Your task to perform on an android device: check out phone information Image 0: 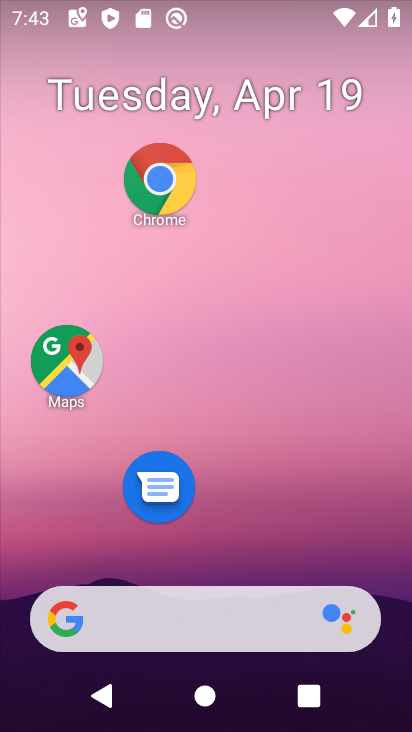
Step 0: drag from (293, 598) to (165, 191)
Your task to perform on an android device: check out phone information Image 1: 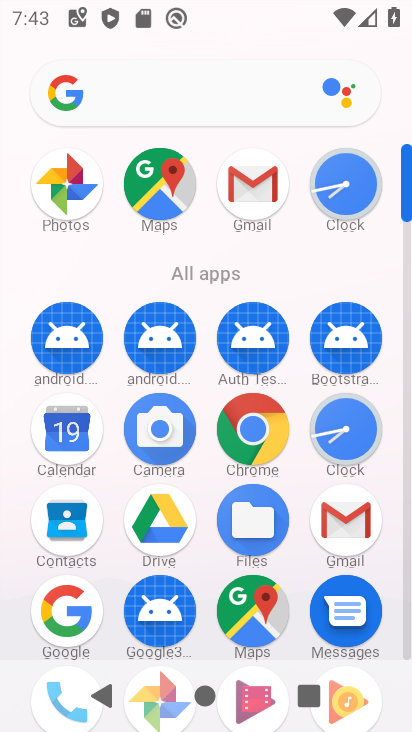
Step 1: drag from (330, 491) to (262, 102)
Your task to perform on an android device: check out phone information Image 2: 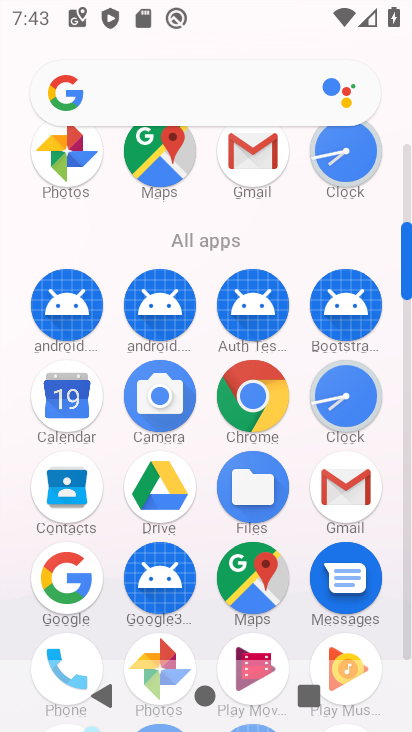
Step 2: click (173, 201)
Your task to perform on an android device: check out phone information Image 3: 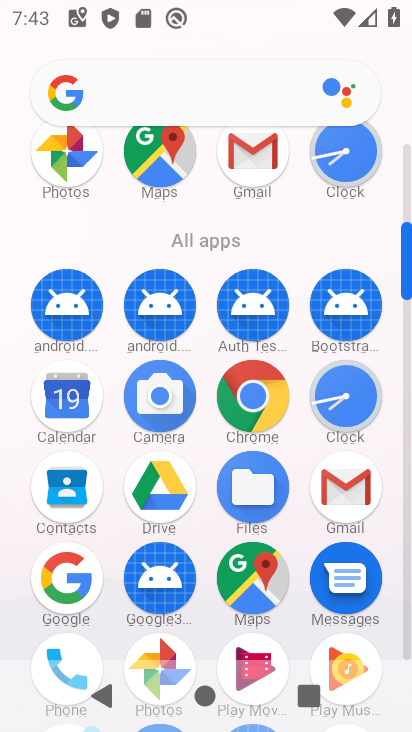
Step 3: drag from (299, 556) to (212, 103)
Your task to perform on an android device: check out phone information Image 4: 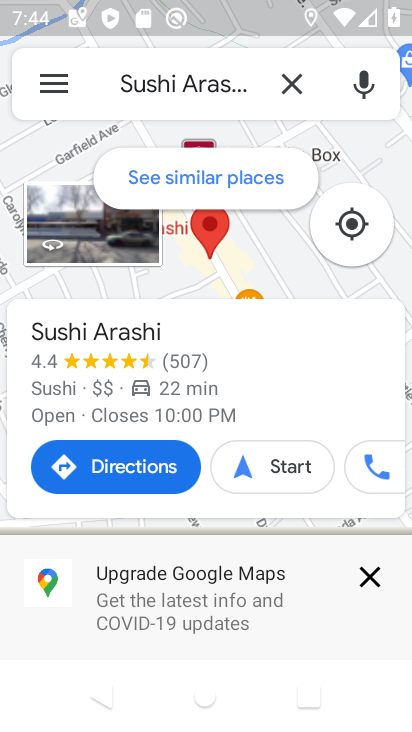
Step 4: press back button
Your task to perform on an android device: check out phone information Image 5: 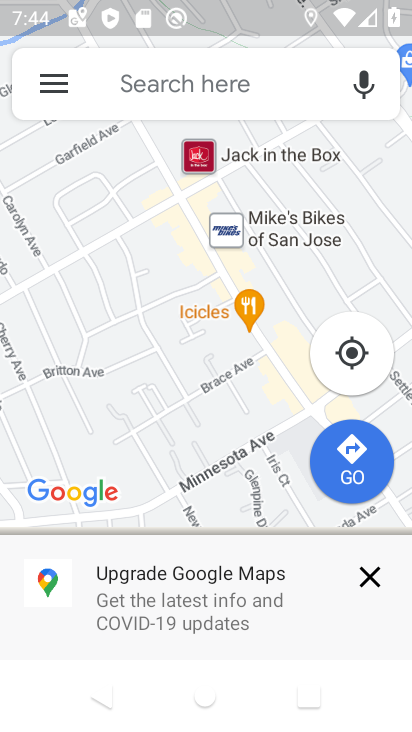
Step 5: press home button
Your task to perform on an android device: check out phone information Image 6: 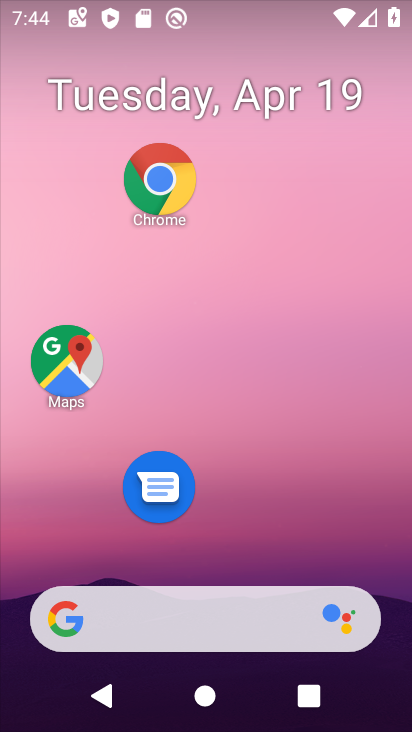
Step 6: drag from (252, 654) to (194, 0)
Your task to perform on an android device: check out phone information Image 7: 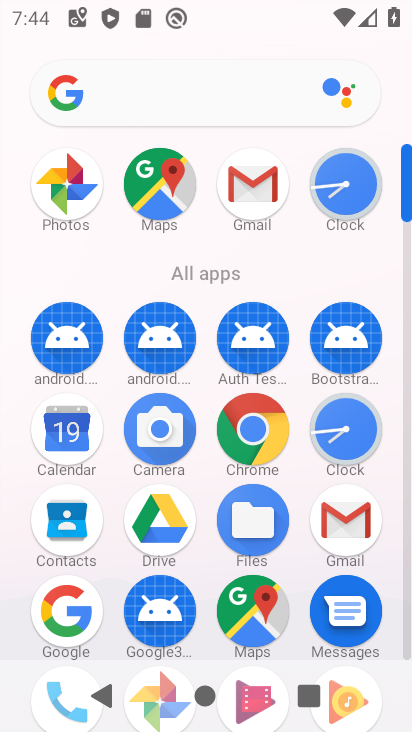
Step 7: drag from (352, 558) to (352, 96)
Your task to perform on an android device: check out phone information Image 8: 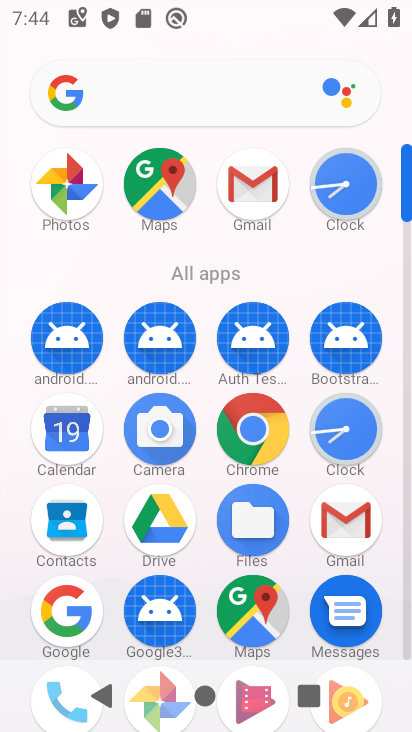
Step 8: drag from (274, 324) to (231, 197)
Your task to perform on an android device: check out phone information Image 9: 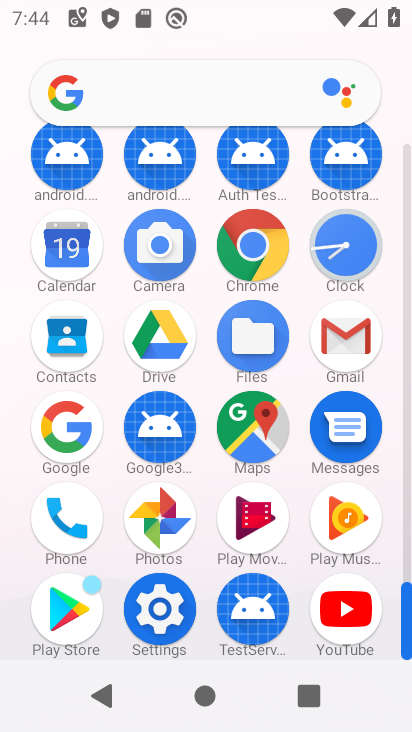
Step 9: click (157, 601)
Your task to perform on an android device: check out phone information Image 10: 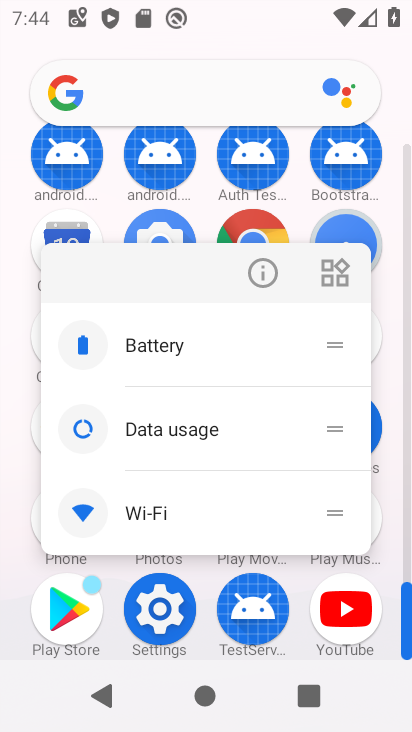
Step 10: click (168, 621)
Your task to perform on an android device: check out phone information Image 11: 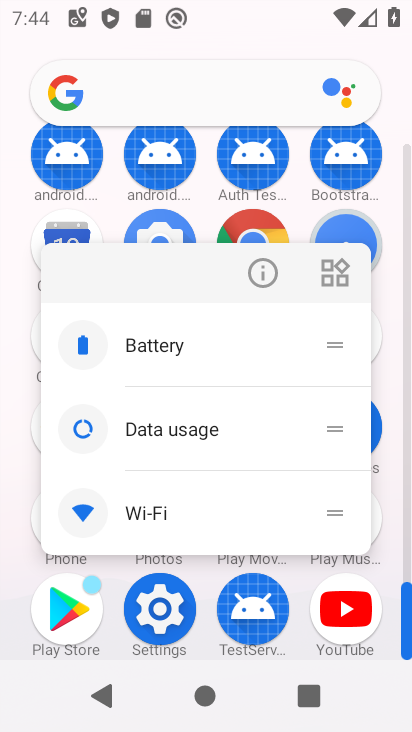
Step 11: click (161, 616)
Your task to perform on an android device: check out phone information Image 12: 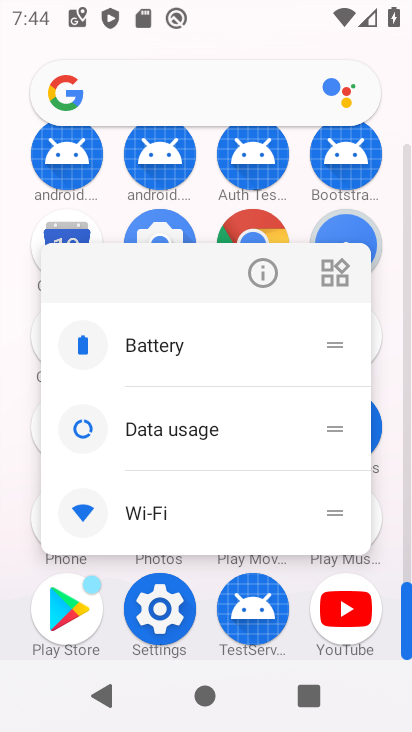
Step 12: click (160, 616)
Your task to perform on an android device: check out phone information Image 13: 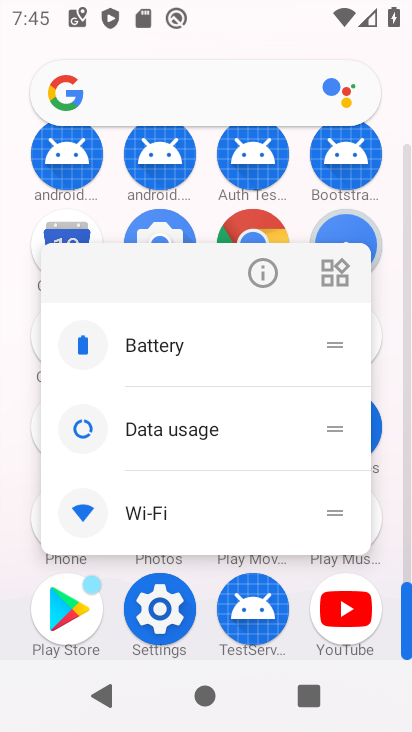
Step 13: click (159, 617)
Your task to perform on an android device: check out phone information Image 14: 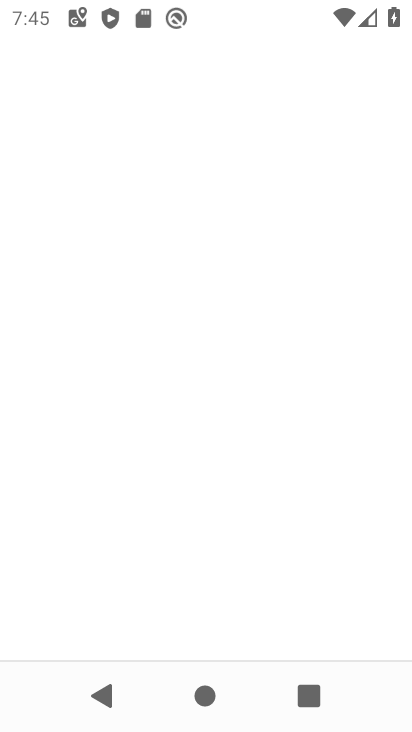
Step 14: click (154, 615)
Your task to perform on an android device: check out phone information Image 15: 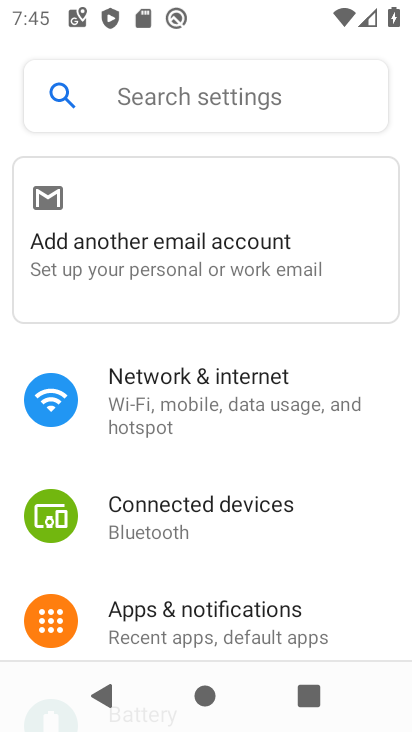
Step 15: drag from (198, 572) to (190, 334)
Your task to perform on an android device: check out phone information Image 16: 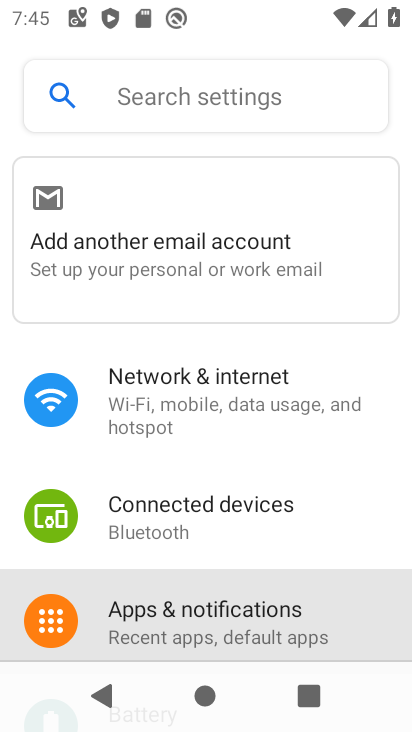
Step 16: drag from (212, 576) to (197, 308)
Your task to perform on an android device: check out phone information Image 17: 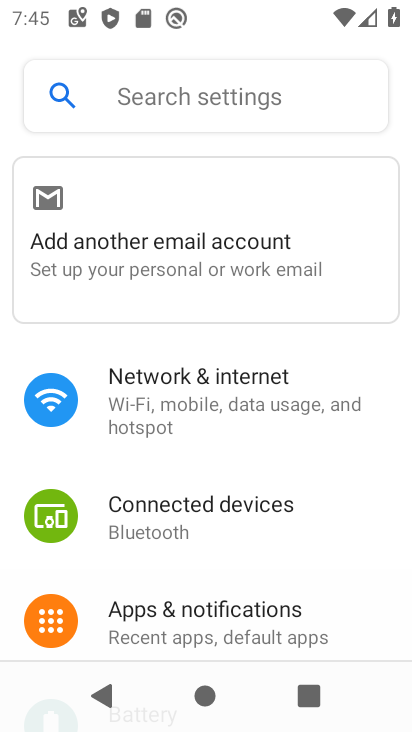
Step 17: drag from (261, 580) to (233, 305)
Your task to perform on an android device: check out phone information Image 18: 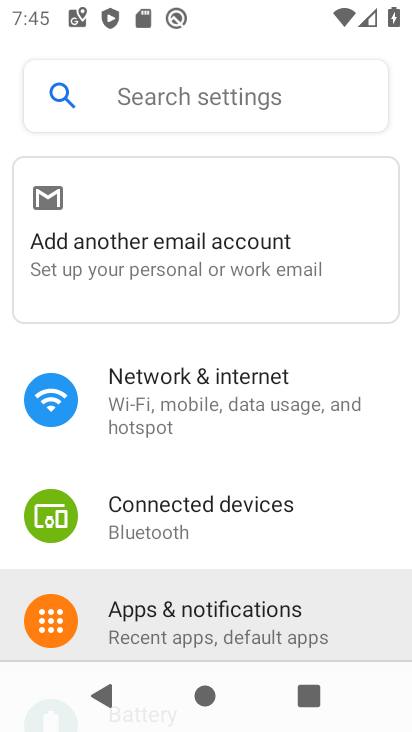
Step 18: drag from (253, 570) to (164, 166)
Your task to perform on an android device: check out phone information Image 19: 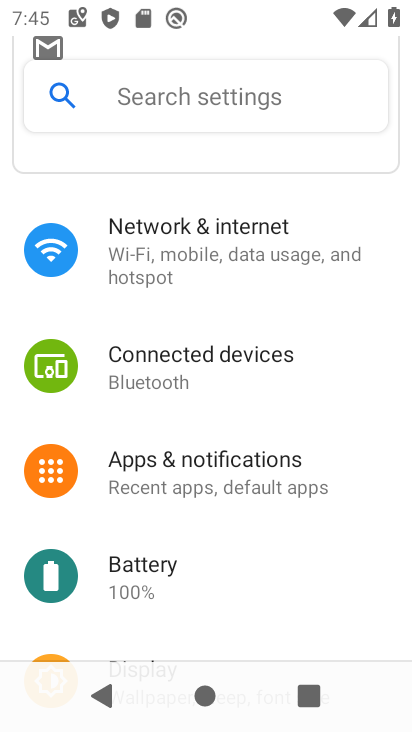
Step 19: drag from (110, 493) to (108, 211)
Your task to perform on an android device: check out phone information Image 20: 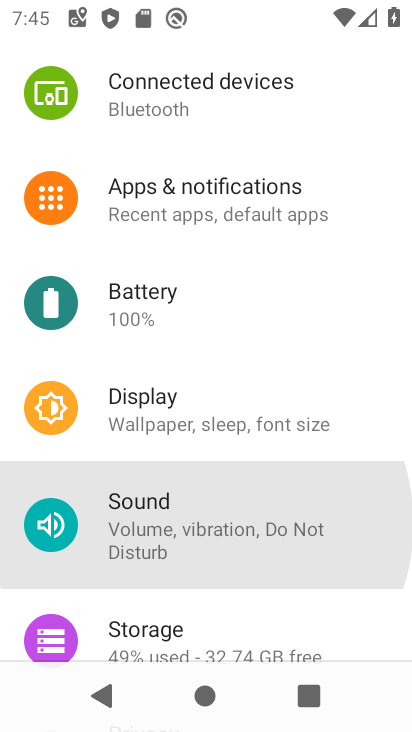
Step 20: drag from (198, 360) to (282, 310)
Your task to perform on an android device: check out phone information Image 21: 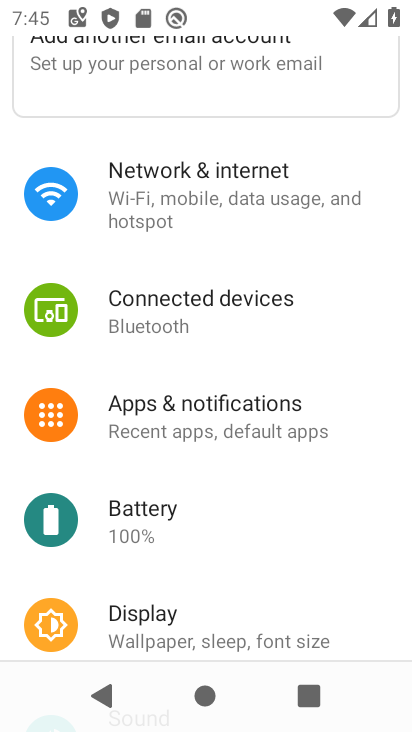
Step 21: drag from (288, 687) to (150, 221)
Your task to perform on an android device: check out phone information Image 22: 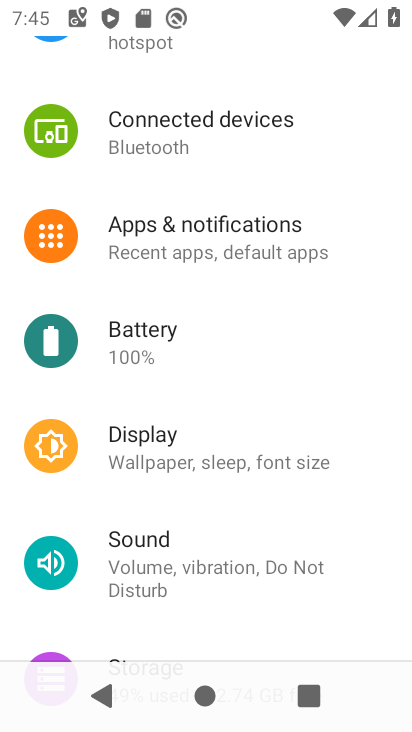
Step 22: drag from (230, 585) to (256, 247)
Your task to perform on an android device: check out phone information Image 23: 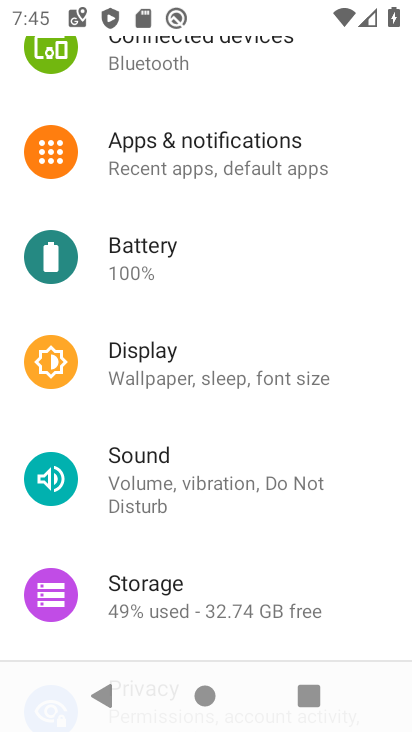
Step 23: drag from (213, 576) to (139, 212)
Your task to perform on an android device: check out phone information Image 24: 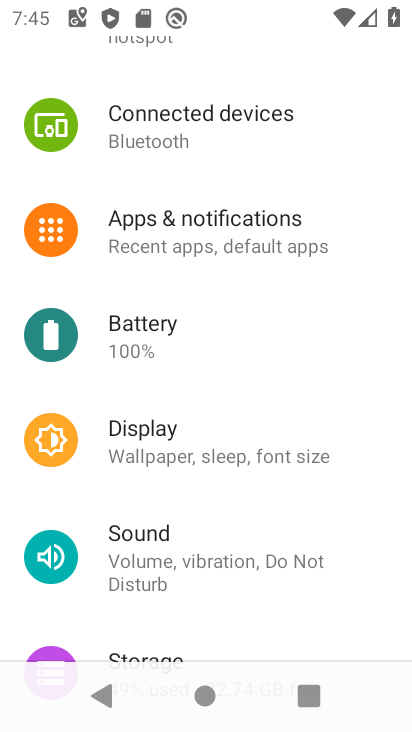
Step 24: drag from (232, 358) to (217, 107)
Your task to perform on an android device: check out phone information Image 25: 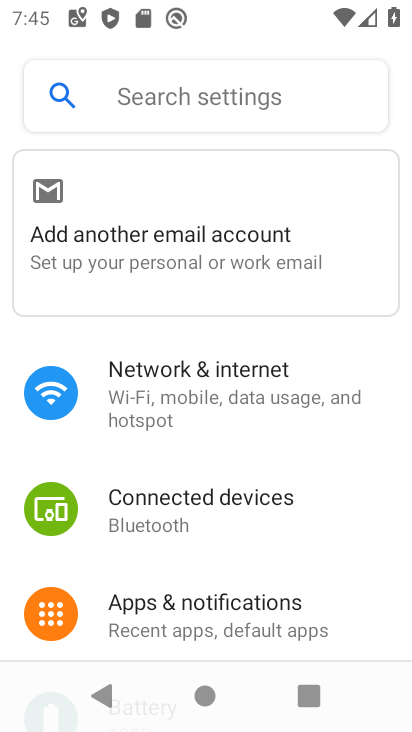
Step 25: drag from (277, 465) to (114, 176)
Your task to perform on an android device: check out phone information Image 26: 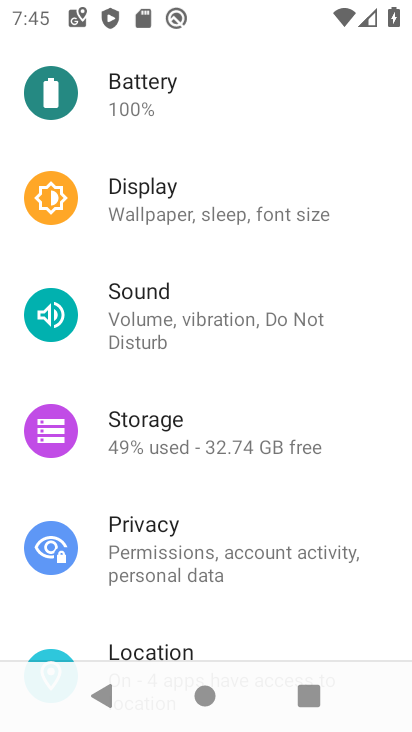
Step 26: click (117, 185)
Your task to perform on an android device: check out phone information Image 27: 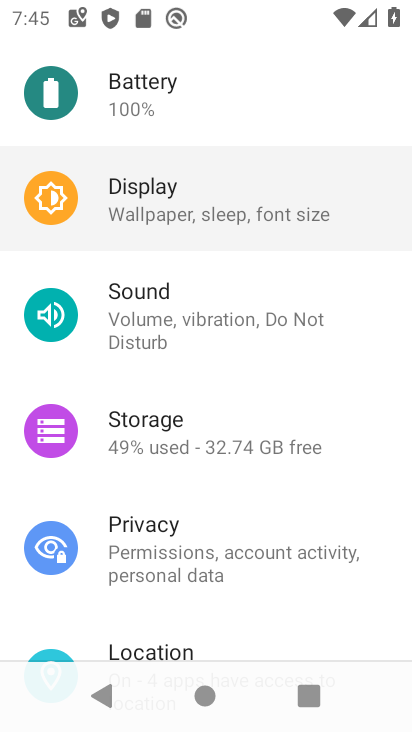
Step 27: drag from (218, 212) to (181, 205)
Your task to perform on an android device: check out phone information Image 28: 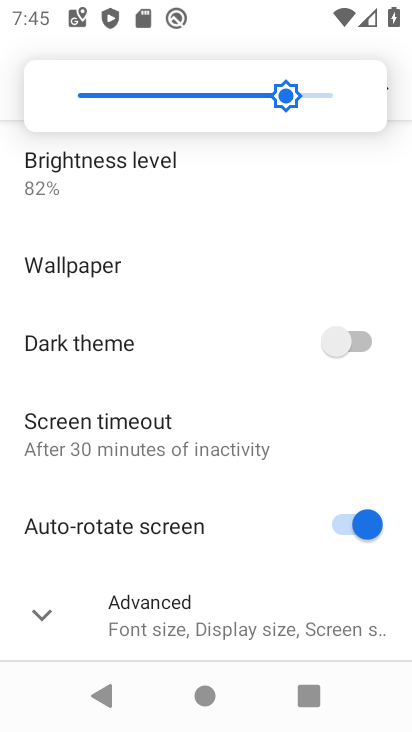
Step 28: drag from (221, 606) to (197, 299)
Your task to perform on an android device: check out phone information Image 29: 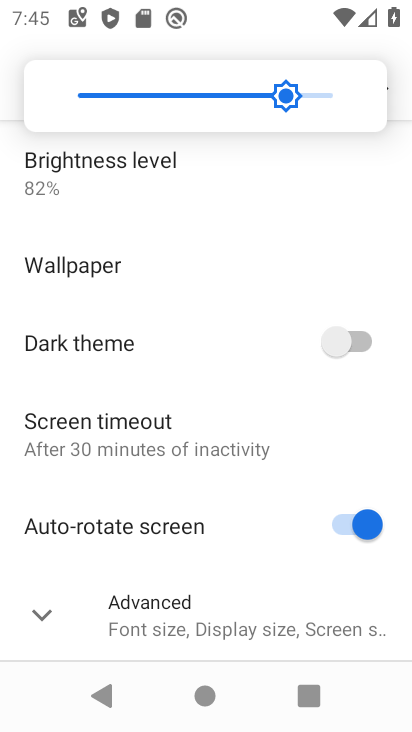
Step 29: drag from (255, 471) to (199, 238)
Your task to perform on an android device: check out phone information Image 30: 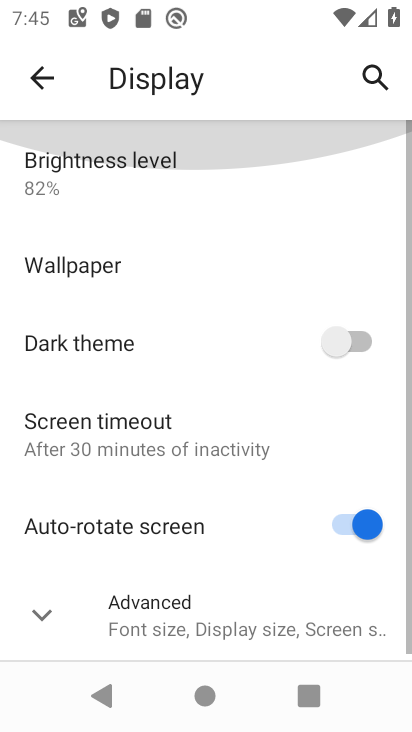
Step 30: drag from (230, 470) to (196, 190)
Your task to perform on an android device: check out phone information Image 31: 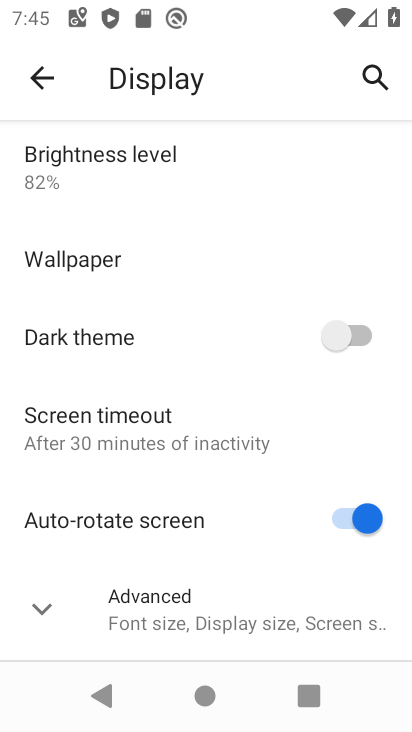
Step 31: click (41, 78)
Your task to perform on an android device: check out phone information Image 32: 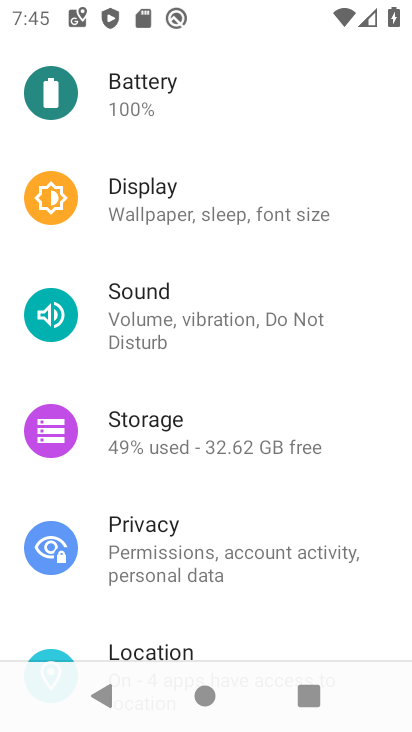
Step 32: drag from (187, 487) to (138, 203)
Your task to perform on an android device: check out phone information Image 33: 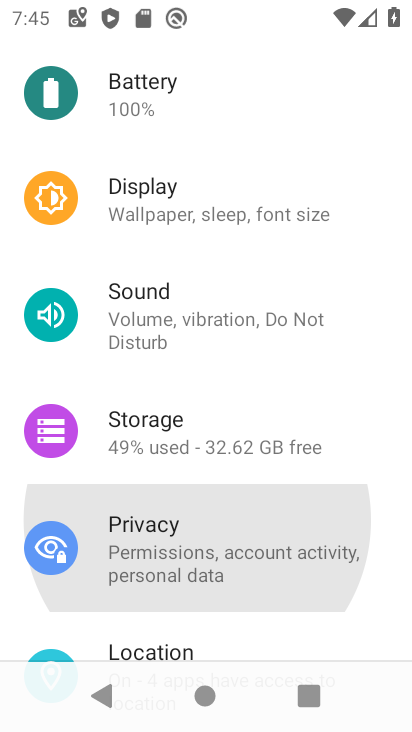
Step 33: drag from (190, 259) to (195, 225)
Your task to perform on an android device: check out phone information Image 34: 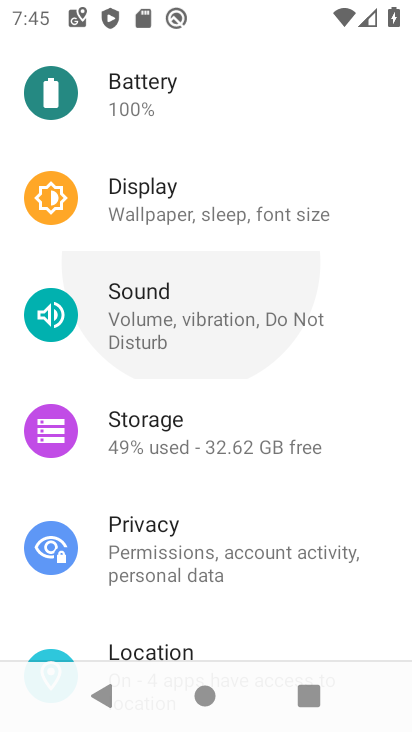
Step 34: click (261, 259)
Your task to perform on an android device: check out phone information Image 35: 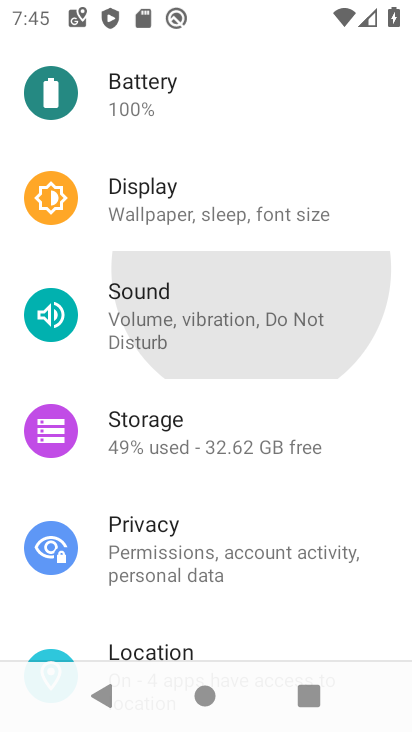
Step 35: click (197, 209)
Your task to perform on an android device: check out phone information Image 36: 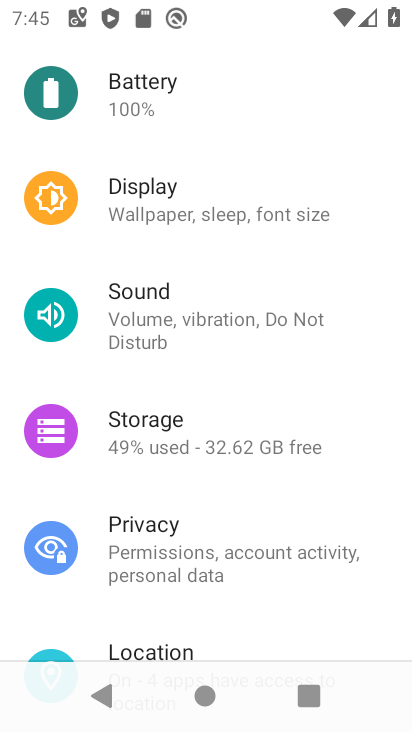
Step 36: drag from (208, 446) to (133, 245)
Your task to perform on an android device: check out phone information Image 37: 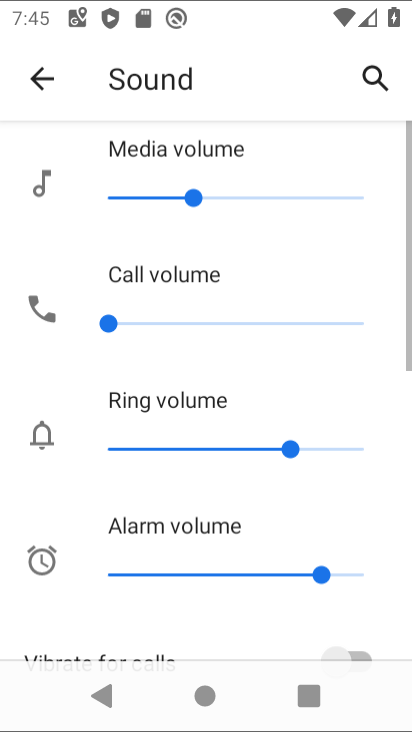
Step 37: drag from (127, 385) to (160, 221)
Your task to perform on an android device: check out phone information Image 38: 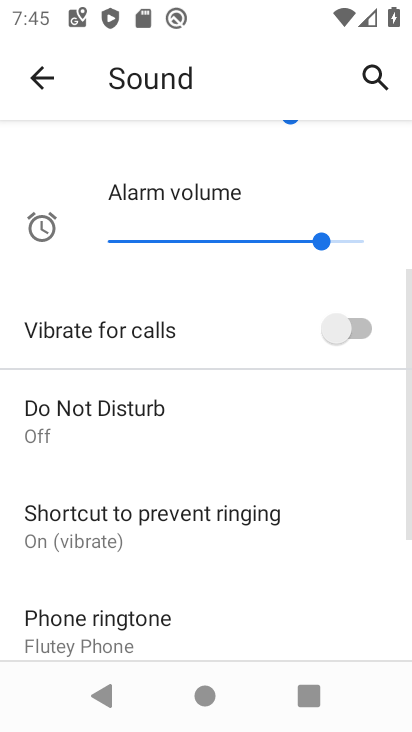
Step 38: click (30, 81)
Your task to perform on an android device: check out phone information Image 39: 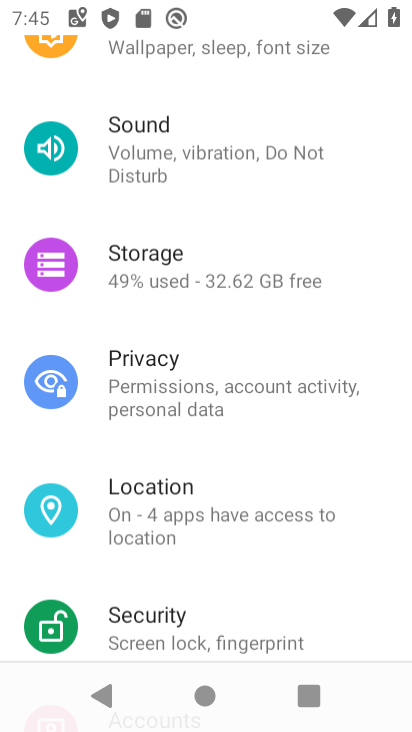
Step 39: click (30, 81)
Your task to perform on an android device: check out phone information Image 40: 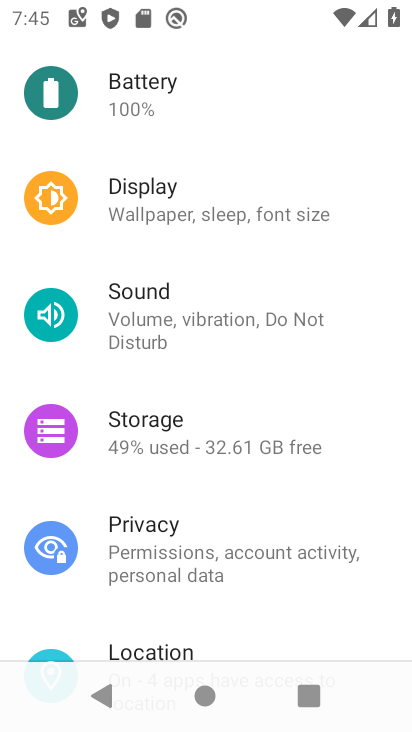
Step 40: drag from (145, 365) to (210, 233)
Your task to perform on an android device: check out phone information Image 41: 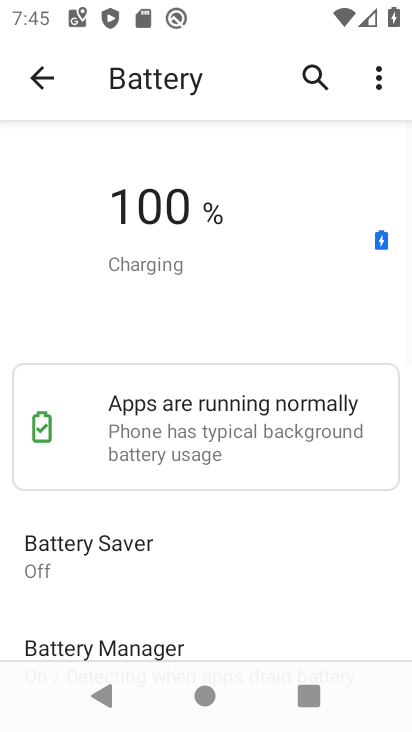
Step 41: click (35, 73)
Your task to perform on an android device: check out phone information Image 42: 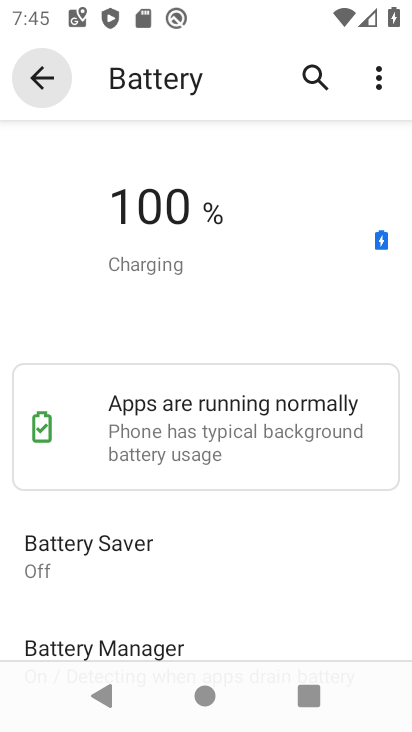
Step 42: click (36, 74)
Your task to perform on an android device: check out phone information Image 43: 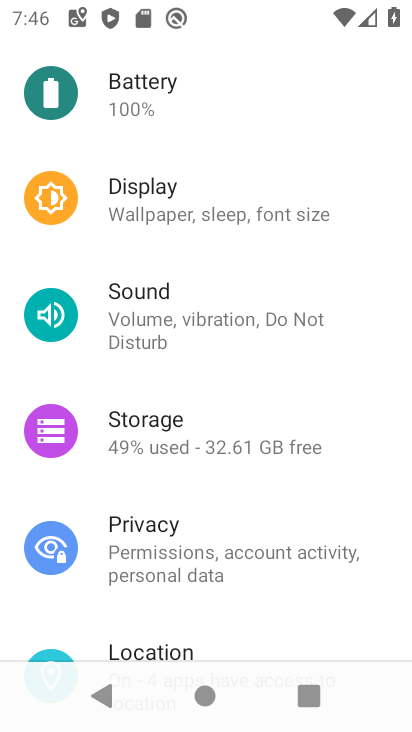
Step 43: drag from (189, 545) to (173, 154)
Your task to perform on an android device: check out phone information Image 44: 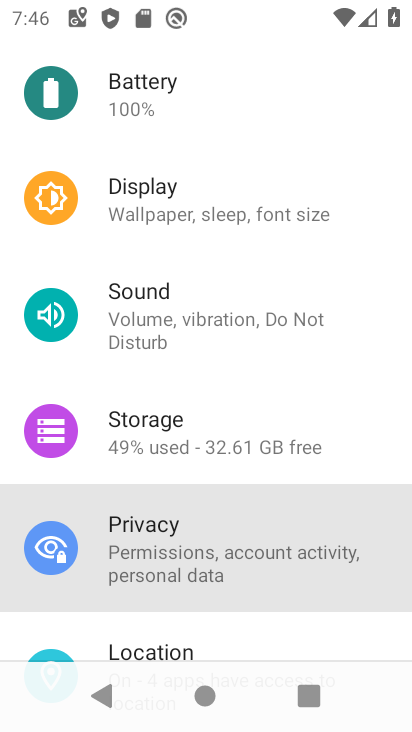
Step 44: drag from (203, 428) to (158, 254)
Your task to perform on an android device: check out phone information Image 45: 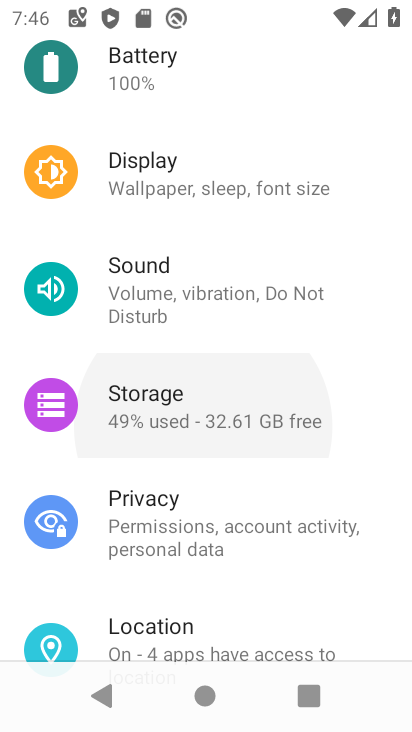
Step 45: drag from (228, 414) to (198, 206)
Your task to perform on an android device: check out phone information Image 46: 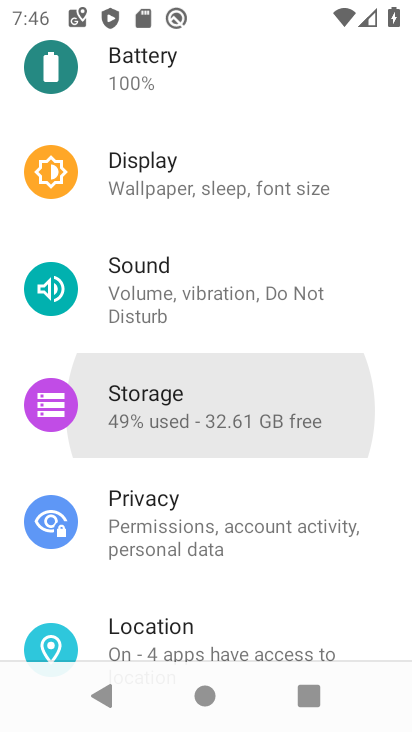
Step 46: drag from (208, 472) to (146, 222)
Your task to perform on an android device: check out phone information Image 47: 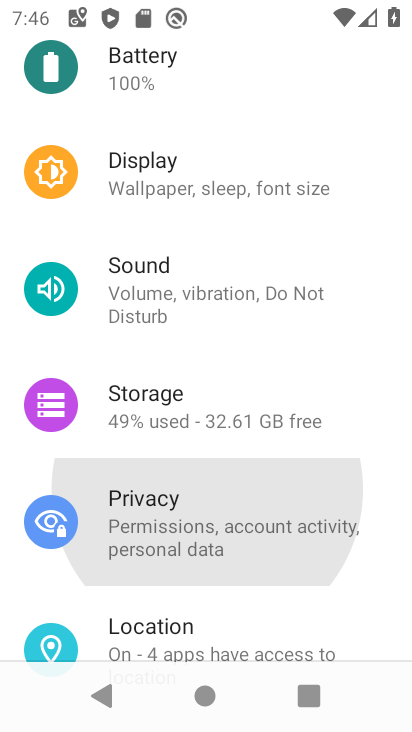
Step 47: drag from (211, 456) to (192, 280)
Your task to perform on an android device: check out phone information Image 48: 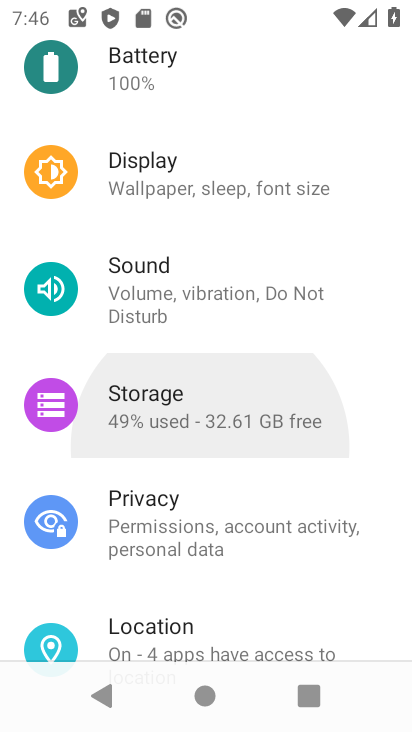
Step 48: drag from (226, 367) to (213, 238)
Your task to perform on an android device: check out phone information Image 49: 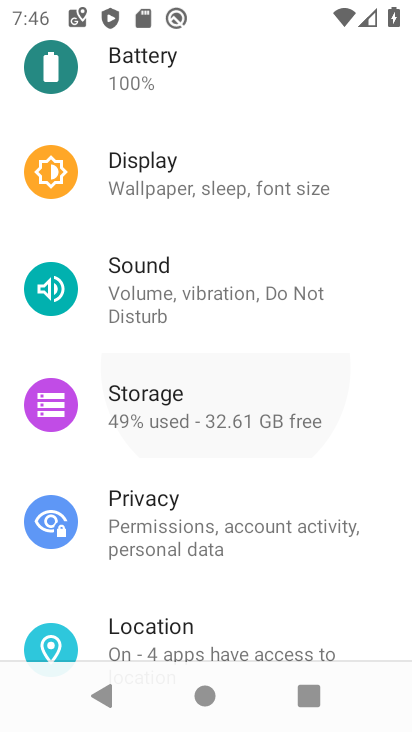
Step 49: click (189, 285)
Your task to perform on an android device: check out phone information Image 50: 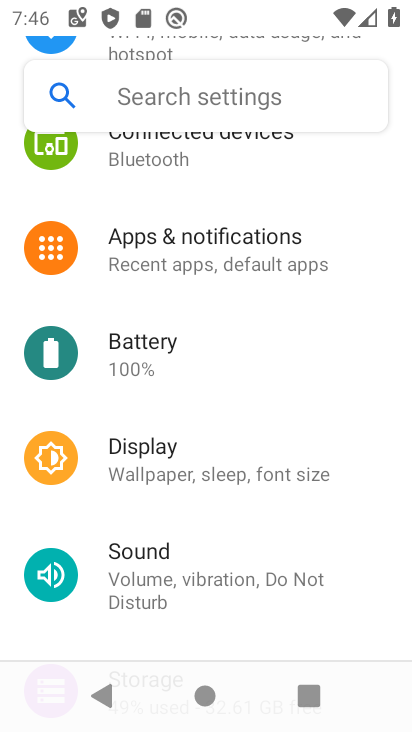
Step 50: drag from (208, 501) to (95, 308)
Your task to perform on an android device: check out phone information Image 51: 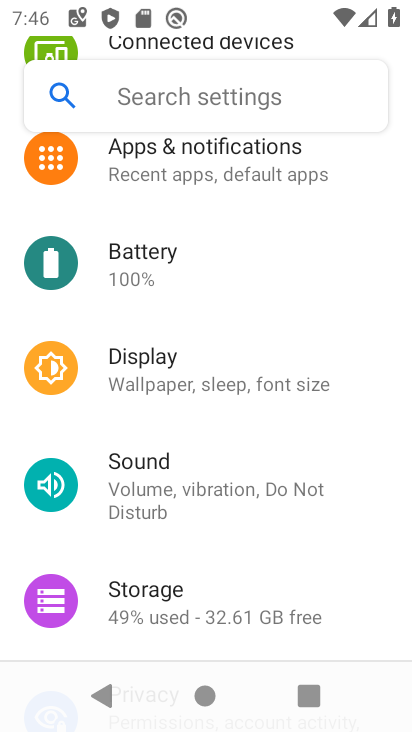
Step 51: drag from (182, 484) to (162, 274)
Your task to perform on an android device: check out phone information Image 52: 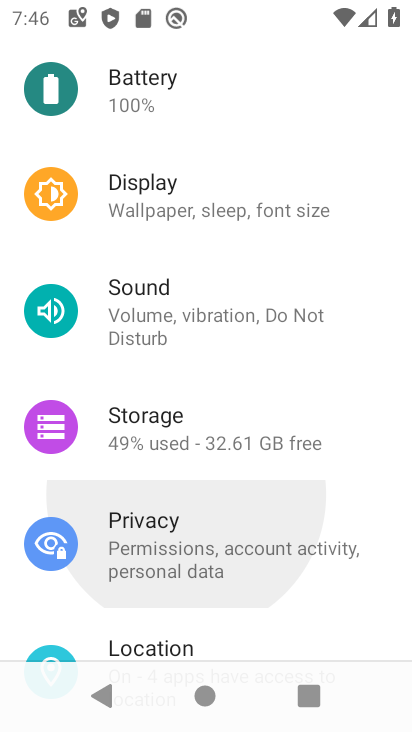
Step 52: drag from (182, 298) to (182, 243)
Your task to perform on an android device: check out phone information Image 53: 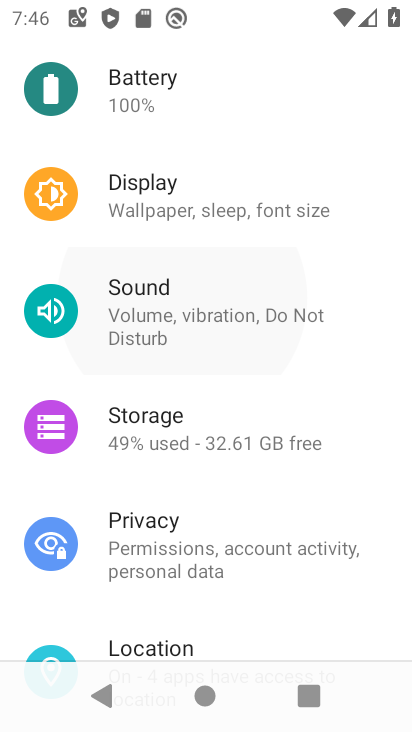
Step 53: drag from (261, 262) to (206, 312)
Your task to perform on an android device: check out phone information Image 54: 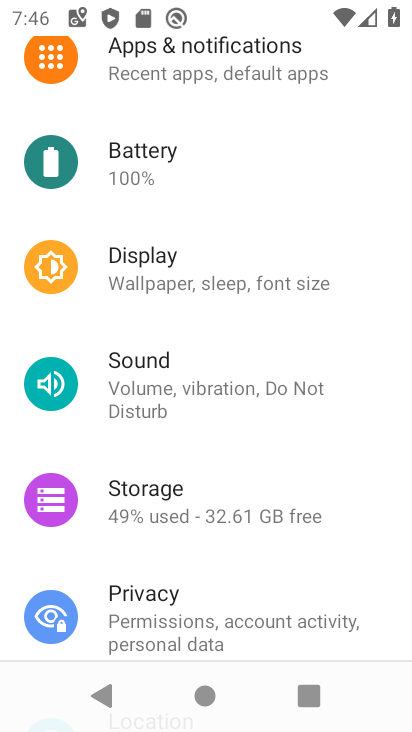
Step 54: drag from (166, 462) to (137, 252)
Your task to perform on an android device: check out phone information Image 55: 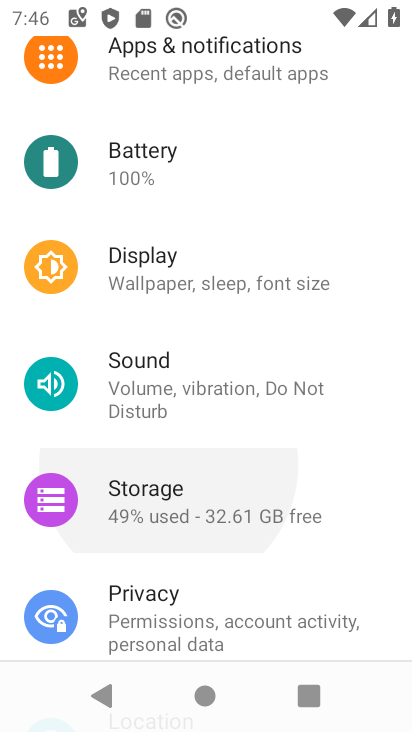
Step 55: drag from (188, 322) to (184, 283)
Your task to perform on an android device: check out phone information Image 56: 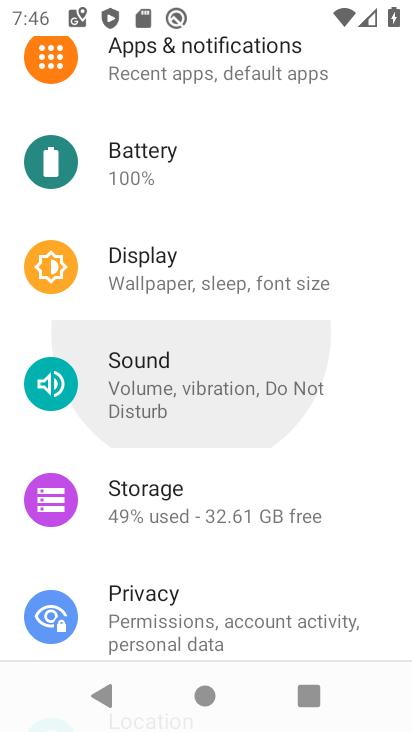
Step 56: drag from (234, 393) to (227, 330)
Your task to perform on an android device: check out phone information Image 57: 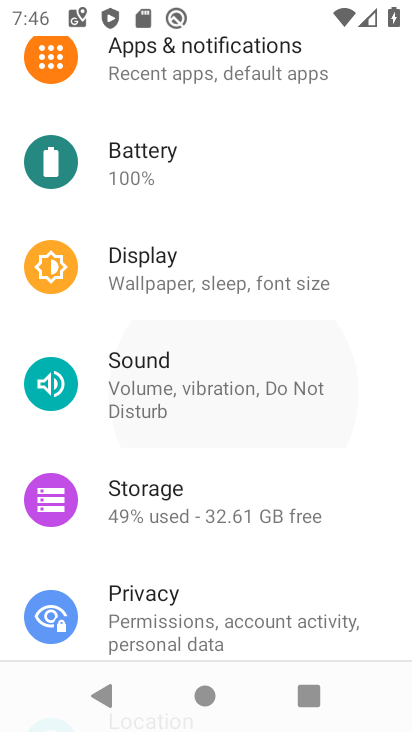
Step 57: click (209, 315)
Your task to perform on an android device: check out phone information Image 58: 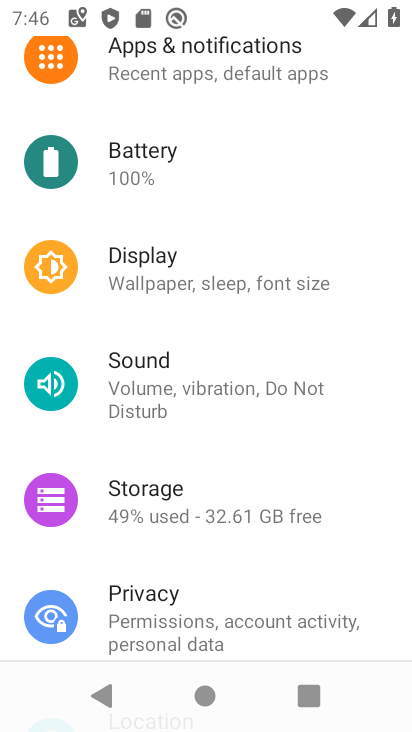
Step 58: drag from (139, 400) to (67, 320)
Your task to perform on an android device: check out phone information Image 59: 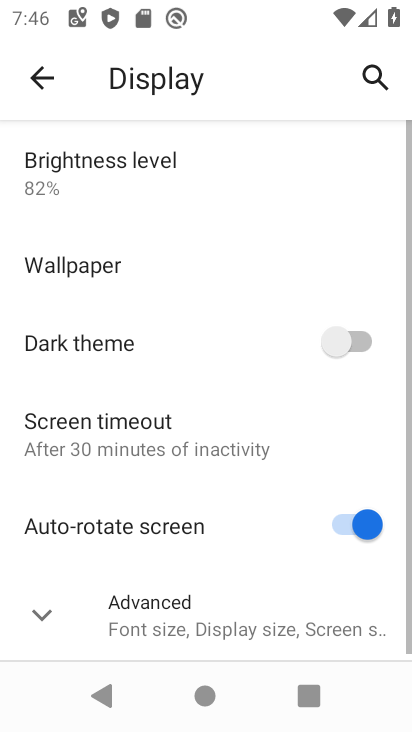
Step 59: drag from (155, 418) to (155, 315)
Your task to perform on an android device: check out phone information Image 60: 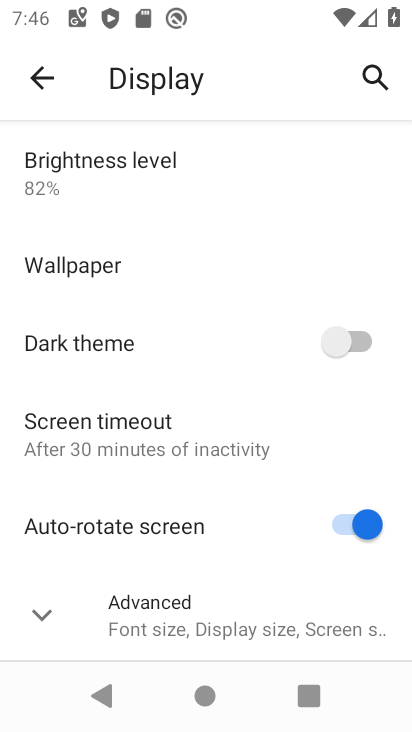
Step 60: click (22, 73)
Your task to perform on an android device: check out phone information Image 61: 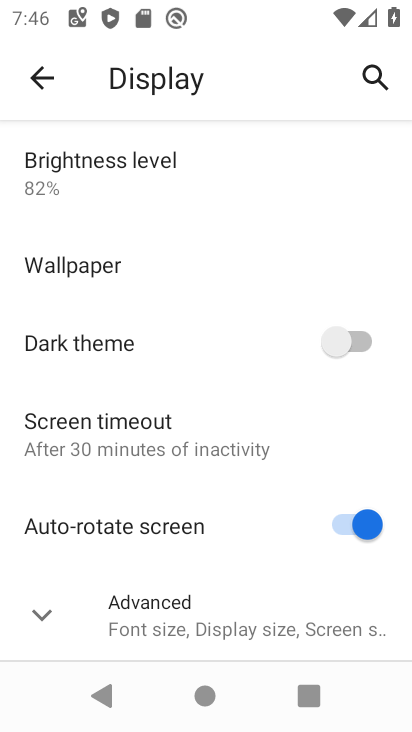
Step 61: click (32, 80)
Your task to perform on an android device: check out phone information Image 62: 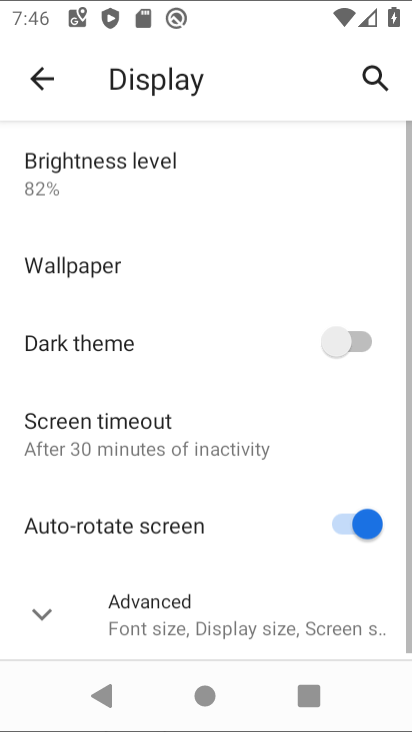
Step 62: drag from (190, 576) to (129, 140)
Your task to perform on an android device: check out phone information Image 63: 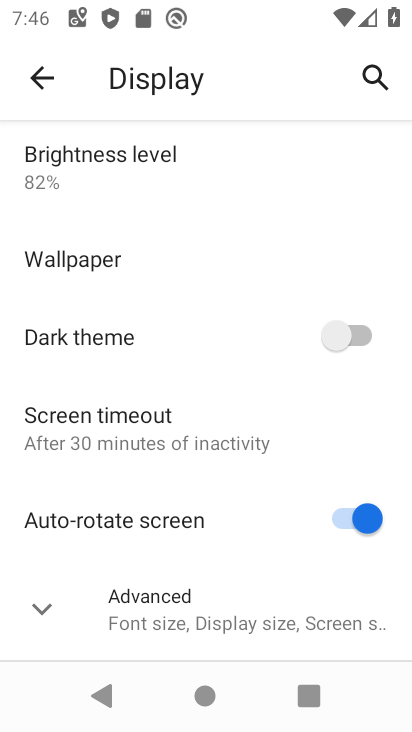
Step 63: click (29, 84)
Your task to perform on an android device: check out phone information Image 64: 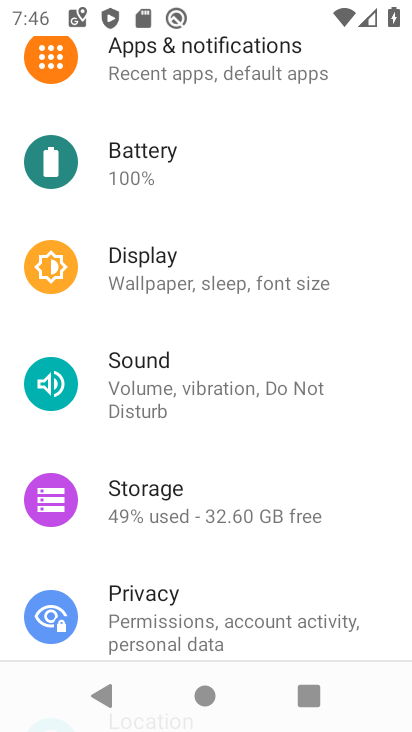
Step 64: drag from (176, 455) to (116, 23)
Your task to perform on an android device: check out phone information Image 65: 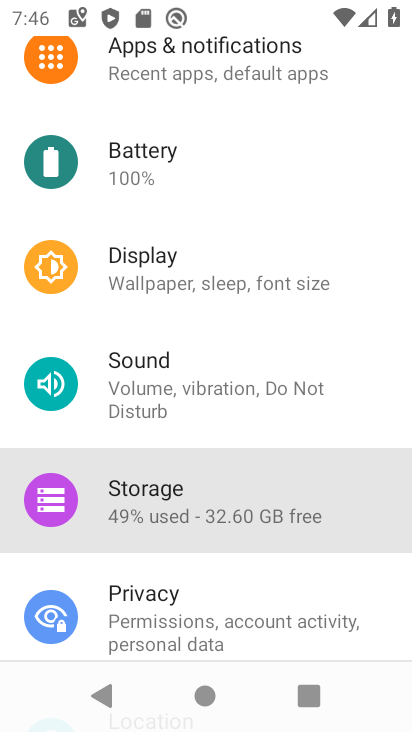
Step 65: drag from (135, 392) to (128, 117)
Your task to perform on an android device: check out phone information Image 66: 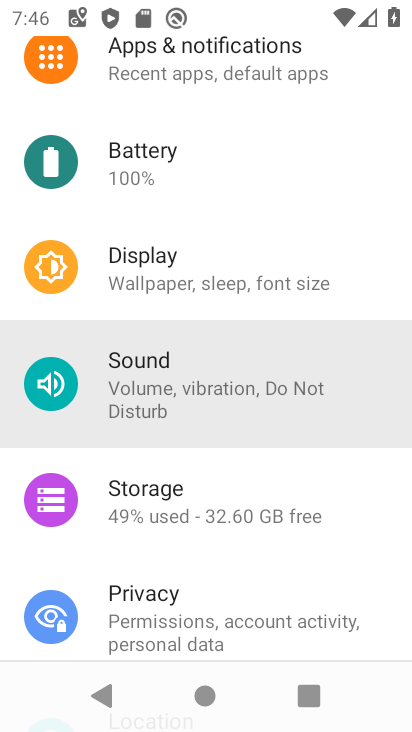
Step 66: drag from (205, 498) to (191, 135)
Your task to perform on an android device: check out phone information Image 67: 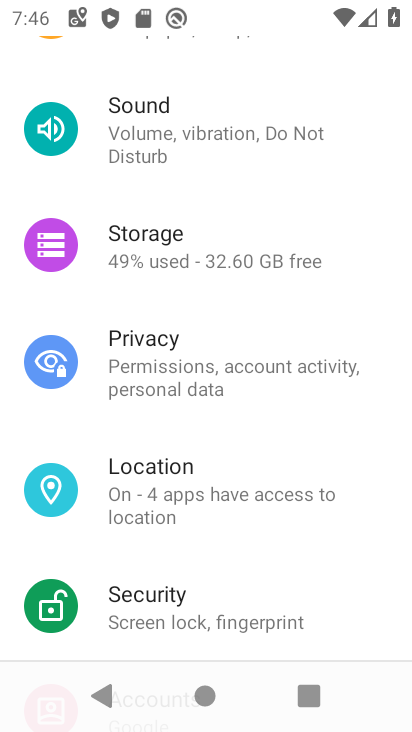
Step 67: drag from (213, 415) to (206, 94)
Your task to perform on an android device: check out phone information Image 68: 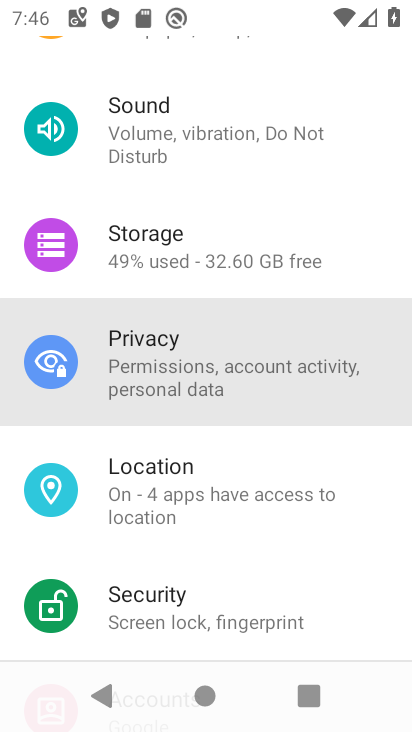
Step 68: drag from (231, 360) to (225, 140)
Your task to perform on an android device: check out phone information Image 69: 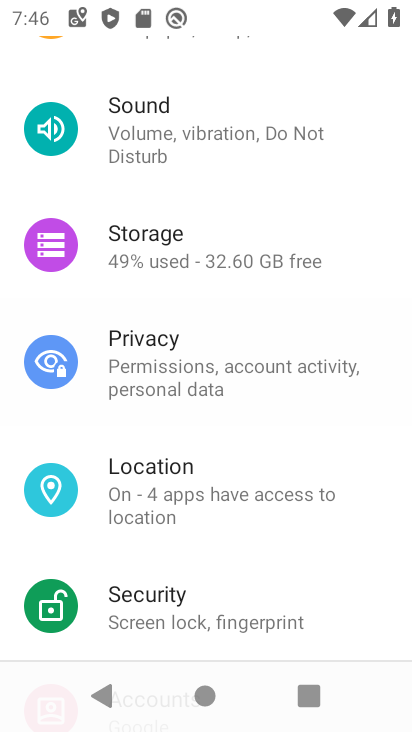
Step 69: drag from (258, 487) to (284, 130)
Your task to perform on an android device: check out phone information Image 70: 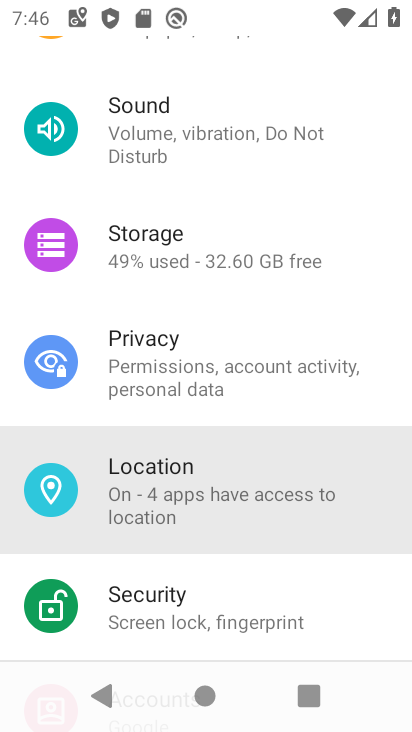
Step 70: drag from (214, 435) to (176, 174)
Your task to perform on an android device: check out phone information Image 71: 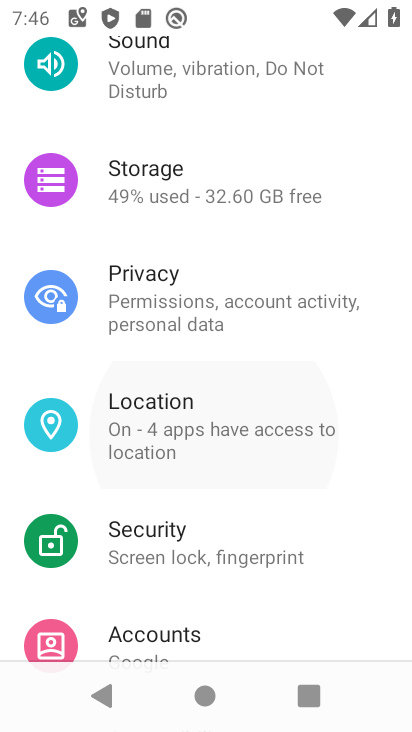
Step 71: drag from (224, 581) to (165, 150)
Your task to perform on an android device: check out phone information Image 72: 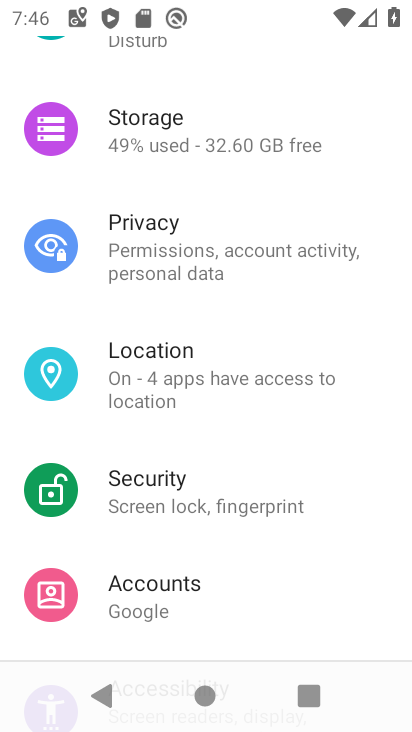
Step 72: drag from (297, 214) to (320, 163)
Your task to perform on an android device: check out phone information Image 73: 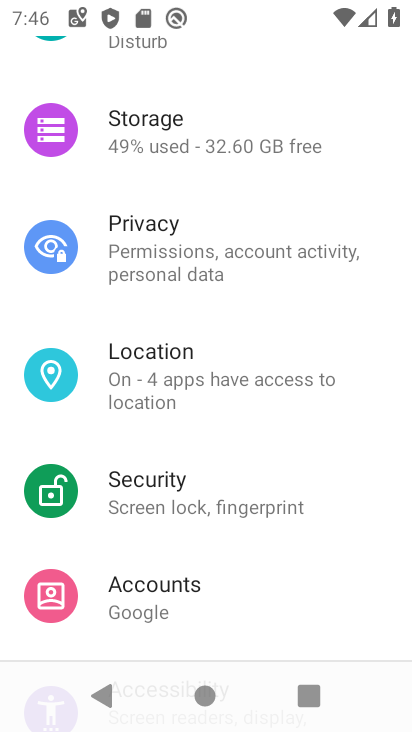
Step 73: click (276, 229)
Your task to perform on an android device: check out phone information Image 74: 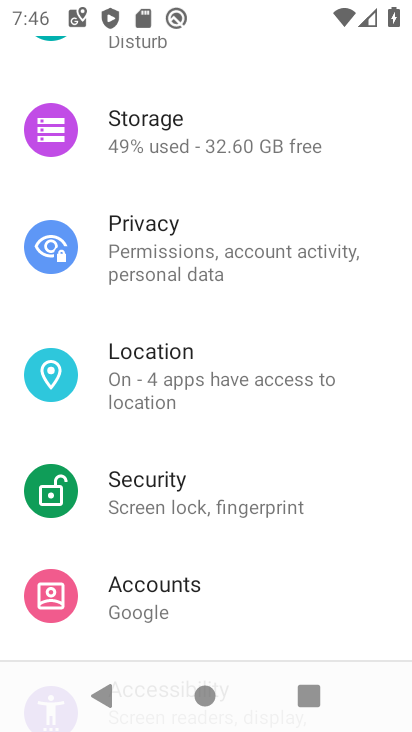
Step 74: drag from (277, 549) to (207, 220)
Your task to perform on an android device: check out phone information Image 75: 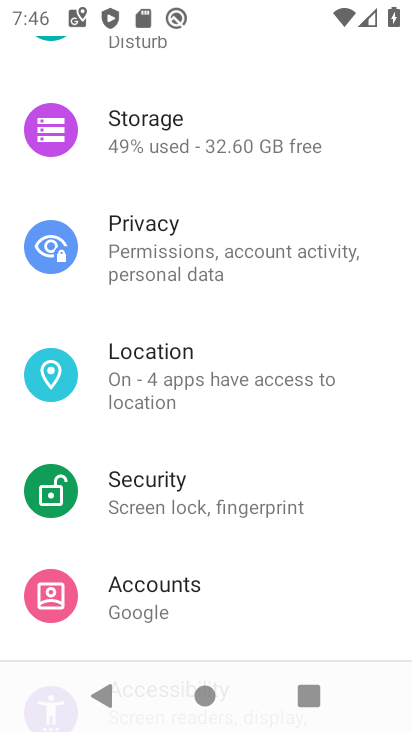
Step 75: drag from (208, 572) to (175, 163)
Your task to perform on an android device: check out phone information Image 76: 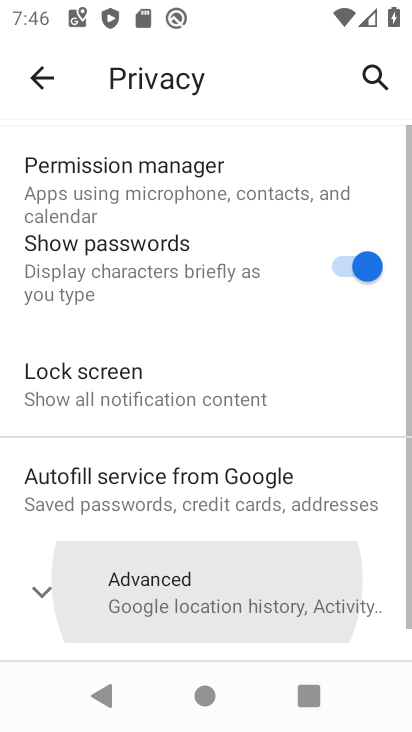
Step 76: drag from (235, 497) to (191, 16)
Your task to perform on an android device: check out phone information Image 77: 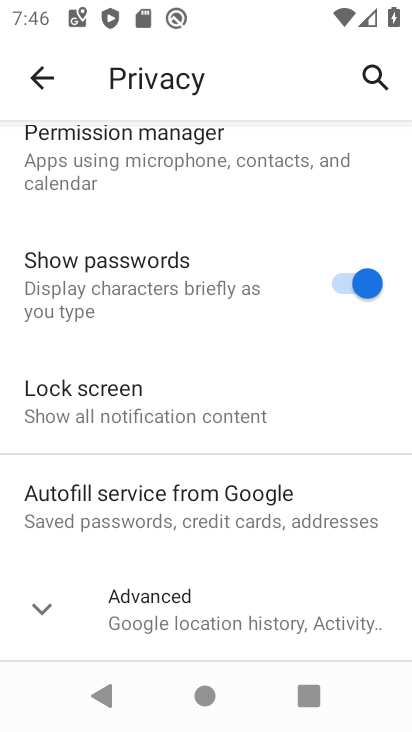
Step 77: click (23, 73)
Your task to perform on an android device: check out phone information Image 78: 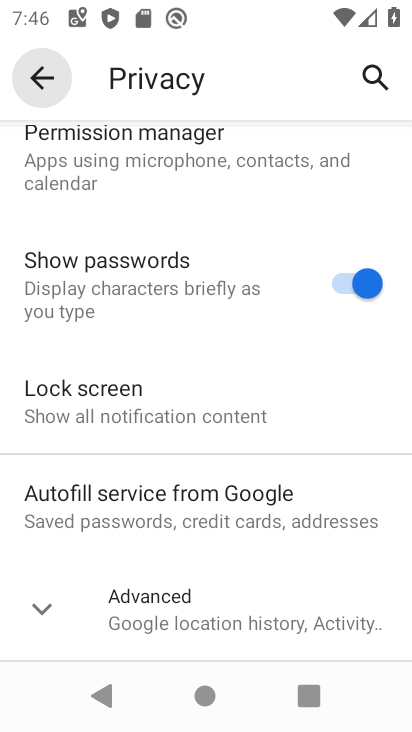
Step 78: click (44, 84)
Your task to perform on an android device: check out phone information Image 79: 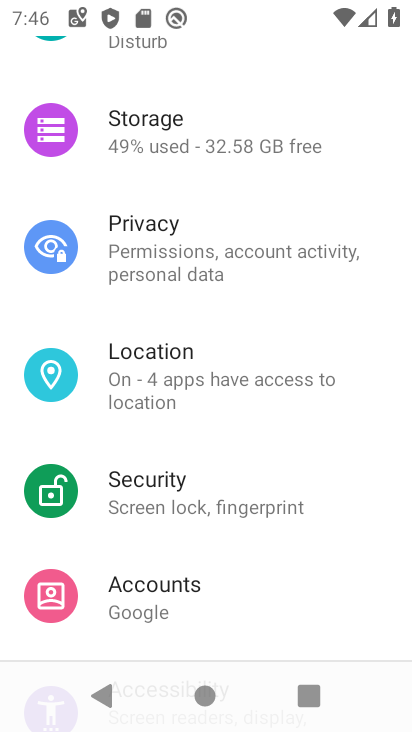
Step 79: drag from (148, 395) to (81, 112)
Your task to perform on an android device: check out phone information Image 80: 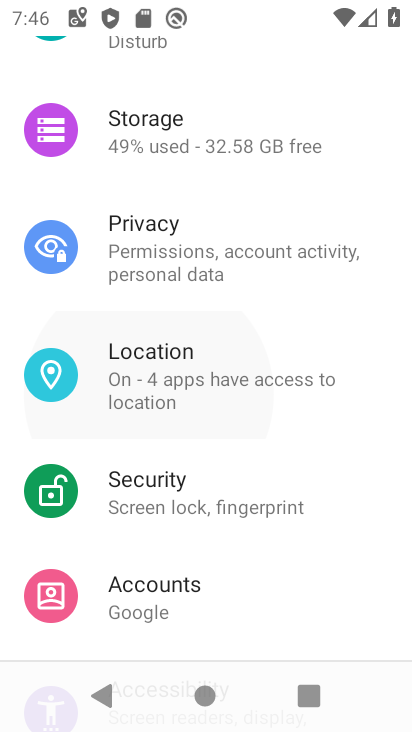
Step 80: drag from (208, 468) to (194, 57)
Your task to perform on an android device: check out phone information Image 81: 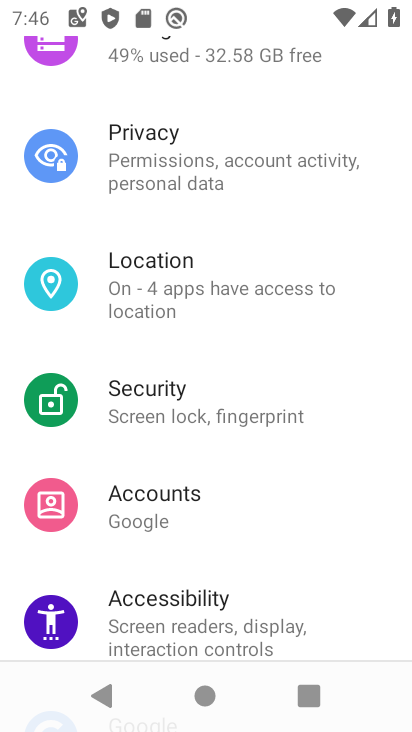
Step 81: click (189, 128)
Your task to perform on an android device: check out phone information Image 82: 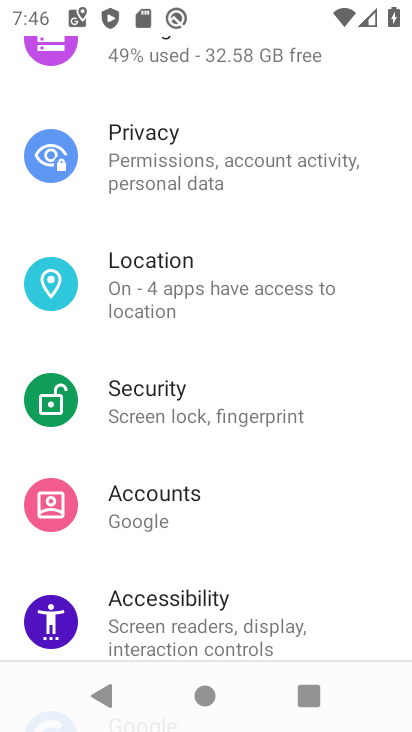
Step 82: drag from (245, 635) to (209, 146)
Your task to perform on an android device: check out phone information Image 83: 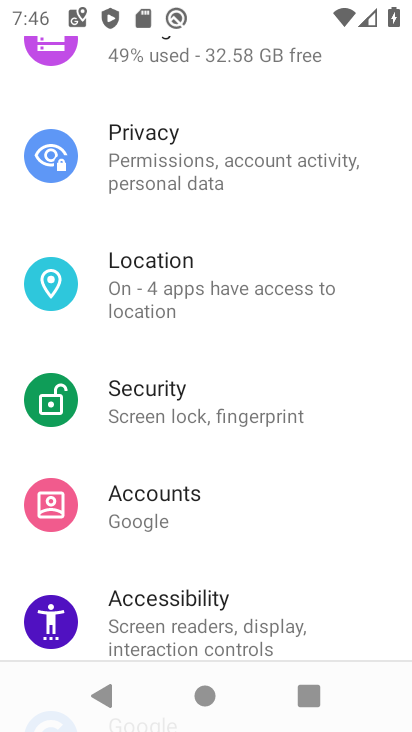
Step 83: drag from (262, 428) to (262, 254)
Your task to perform on an android device: check out phone information Image 84: 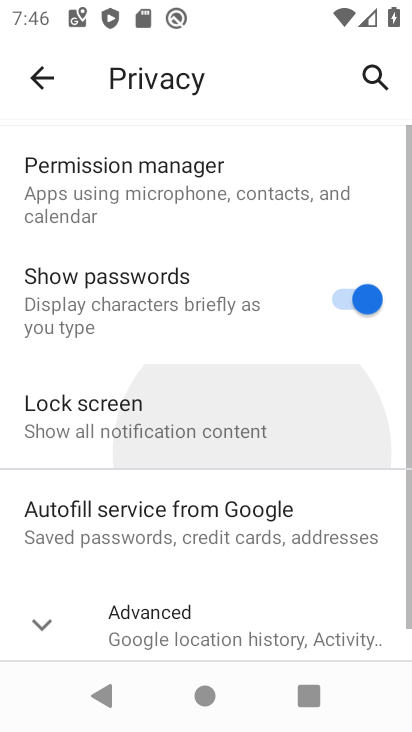
Step 84: drag from (238, 356) to (238, 264)
Your task to perform on an android device: check out phone information Image 85: 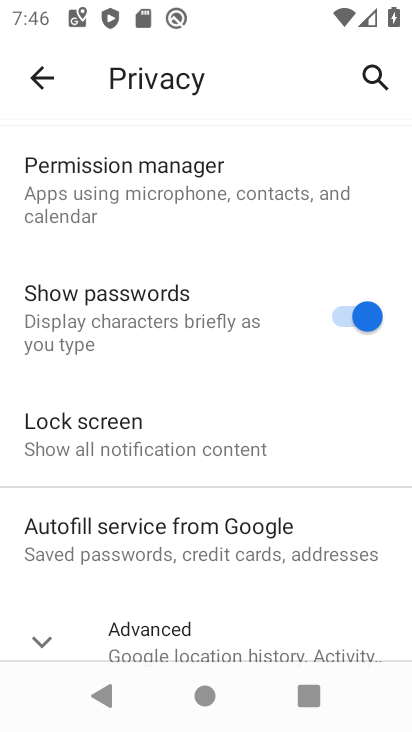
Step 85: click (40, 90)
Your task to perform on an android device: check out phone information Image 86: 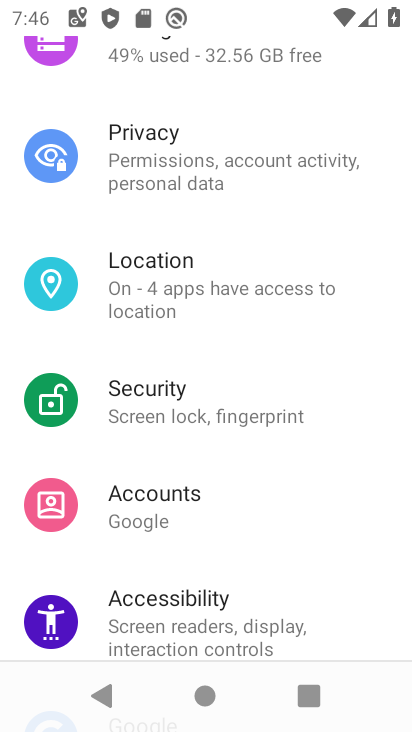
Step 86: drag from (221, 551) to (173, 291)
Your task to perform on an android device: check out phone information Image 87: 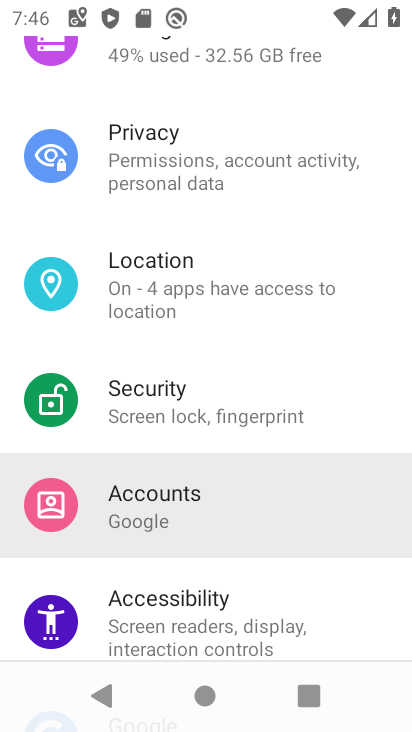
Step 87: drag from (220, 530) to (138, 192)
Your task to perform on an android device: check out phone information Image 88: 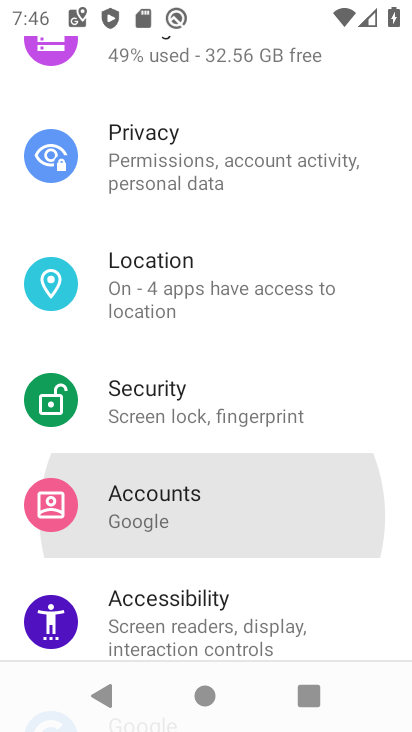
Step 88: drag from (244, 453) to (210, 126)
Your task to perform on an android device: check out phone information Image 89: 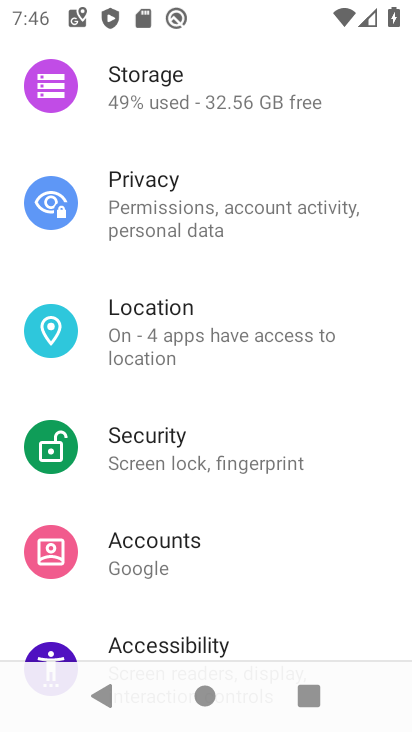
Step 89: drag from (264, 538) to (214, 150)
Your task to perform on an android device: check out phone information Image 90: 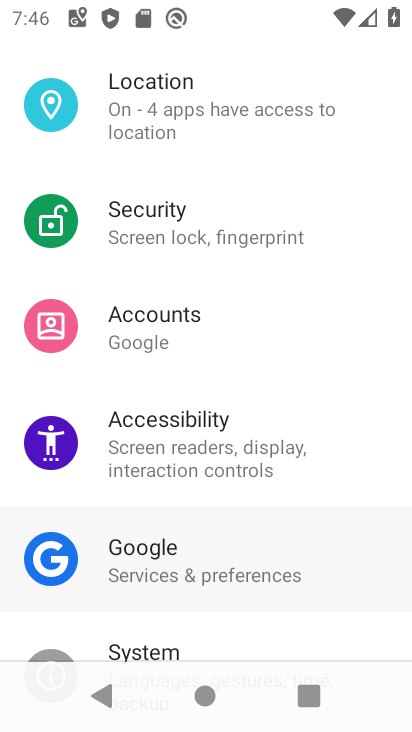
Step 90: drag from (157, 233) to (220, 106)
Your task to perform on an android device: check out phone information Image 91: 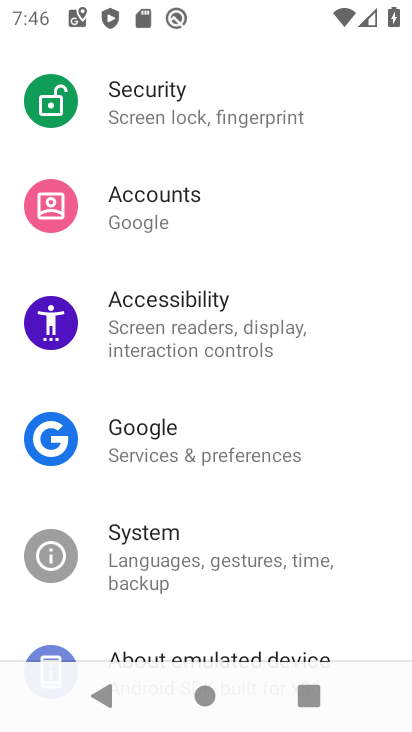
Step 91: drag from (223, 534) to (200, 90)
Your task to perform on an android device: check out phone information Image 92: 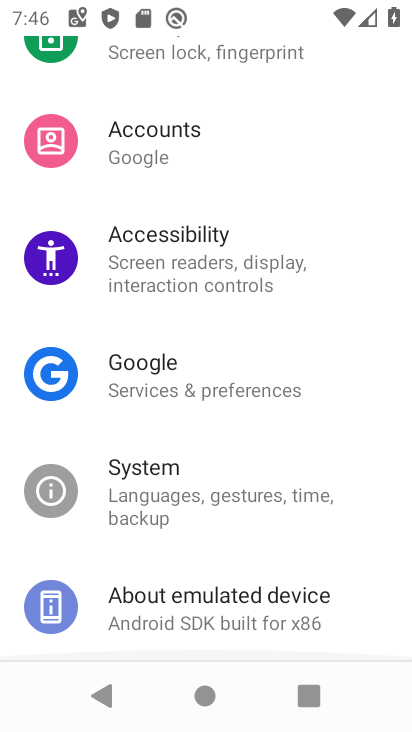
Step 92: drag from (137, 293) to (127, 213)
Your task to perform on an android device: check out phone information Image 93: 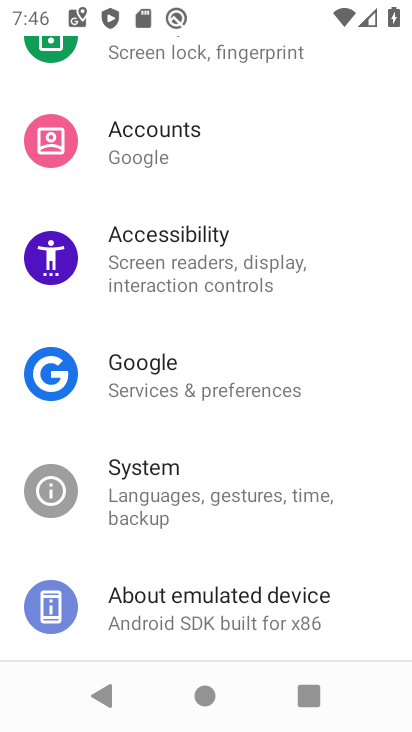
Step 93: click (160, 600)
Your task to perform on an android device: check out phone information Image 94: 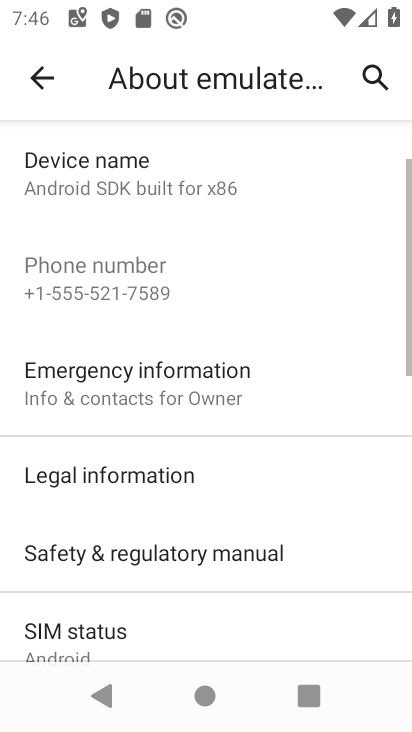
Step 94: click (35, 74)
Your task to perform on an android device: check out phone information Image 95: 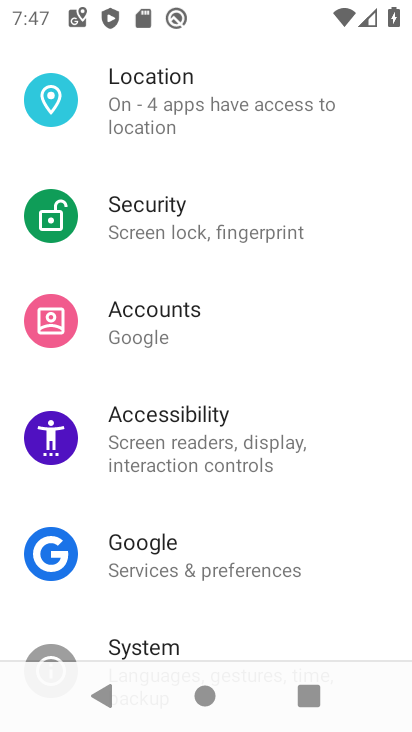
Step 95: click (153, 113)
Your task to perform on an android device: check out phone information Image 96: 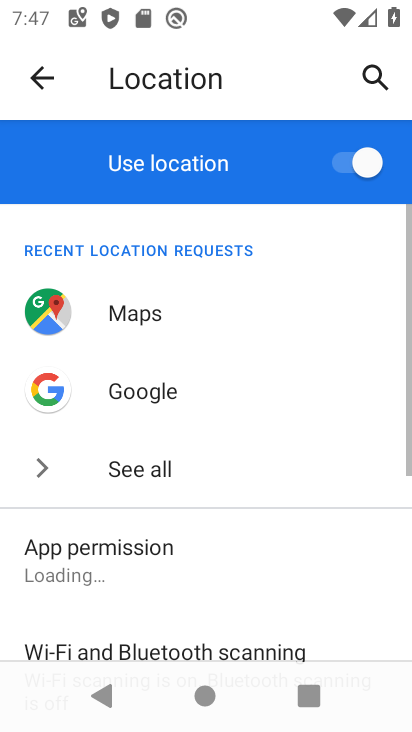
Step 96: drag from (225, 397) to (200, 229)
Your task to perform on an android device: check out phone information Image 97: 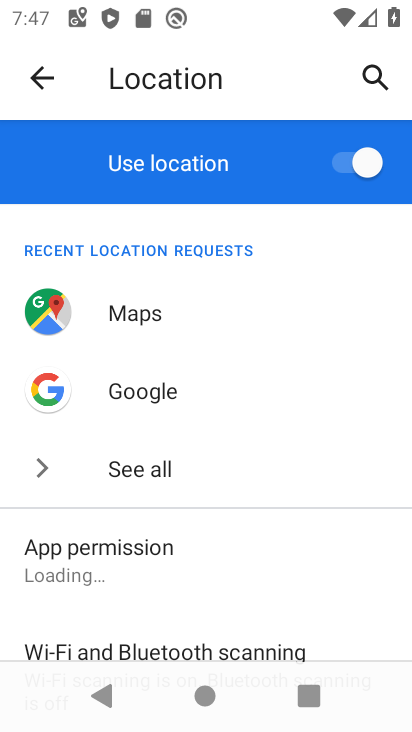
Step 97: drag from (193, 468) to (175, 183)
Your task to perform on an android device: check out phone information Image 98: 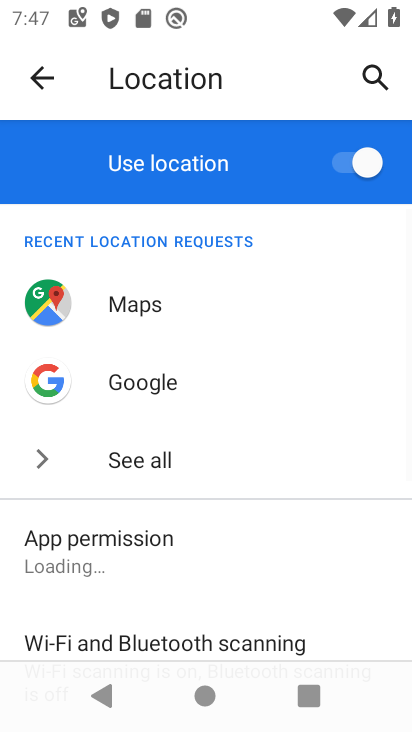
Step 98: click (88, 548)
Your task to perform on an android device: check out phone information Image 99: 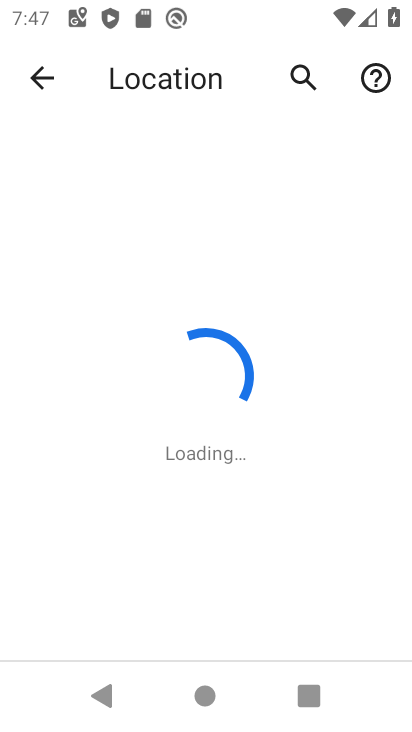
Step 99: task complete